Your task to perform on an android device: Check the weather Image 0: 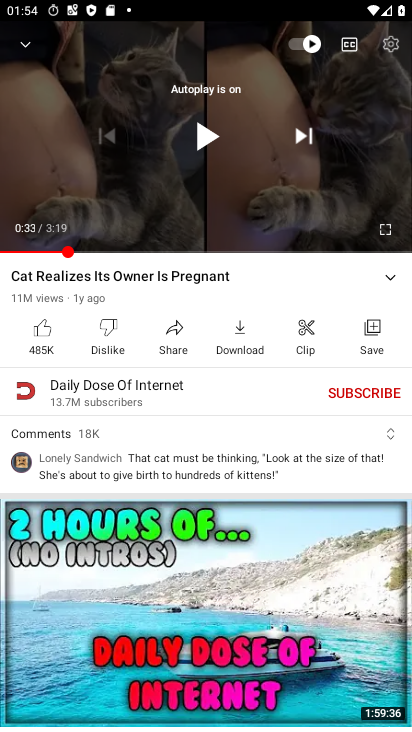
Step 0: press home button
Your task to perform on an android device: Check the weather Image 1: 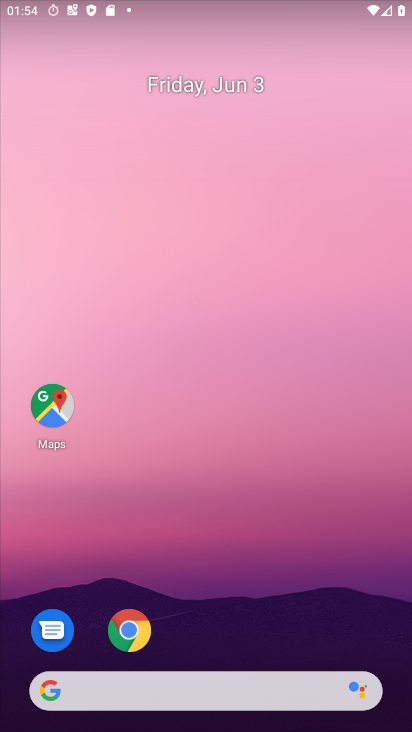
Step 1: click (228, 682)
Your task to perform on an android device: Check the weather Image 2: 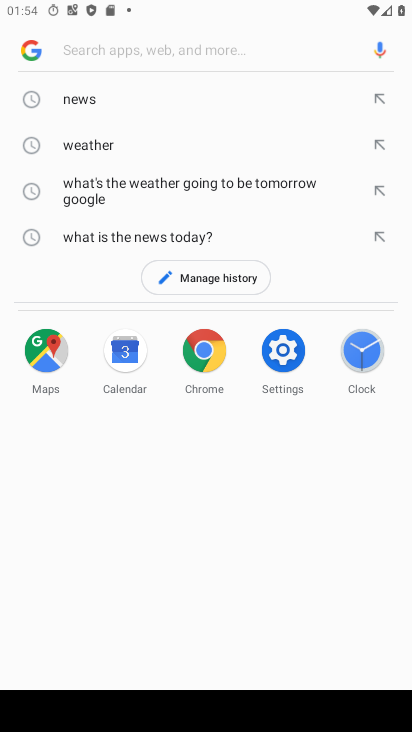
Step 2: click (95, 154)
Your task to perform on an android device: Check the weather Image 3: 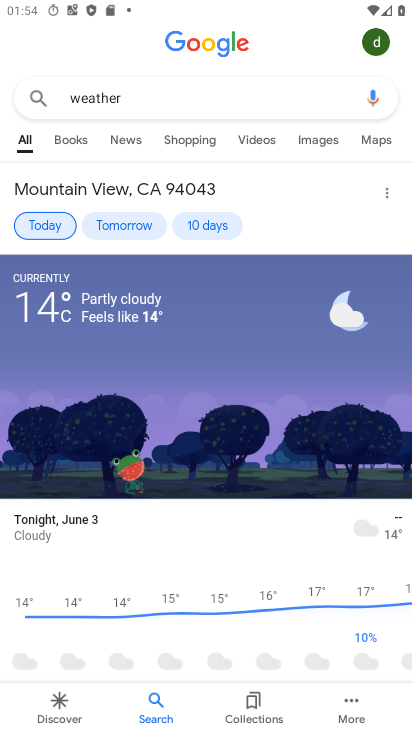
Step 3: task complete